Your task to perform on an android device: Go to Yahoo.com Image 0: 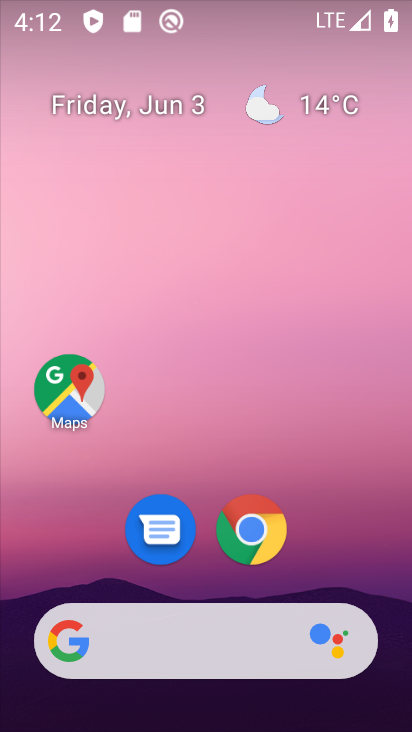
Step 0: press home button
Your task to perform on an android device: Go to Yahoo.com Image 1: 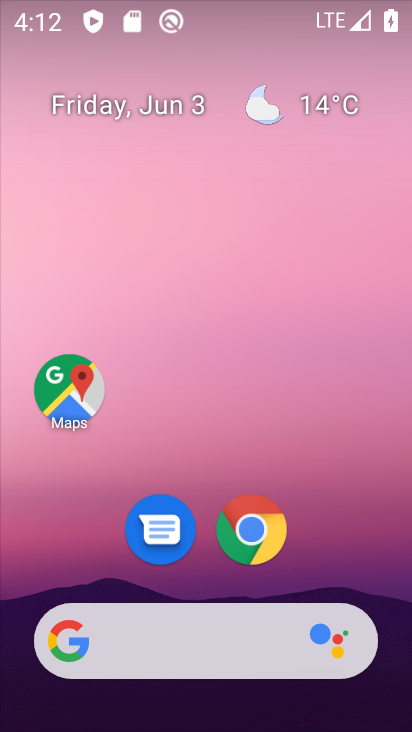
Step 1: drag from (205, 584) to (223, 11)
Your task to perform on an android device: Go to Yahoo.com Image 2: 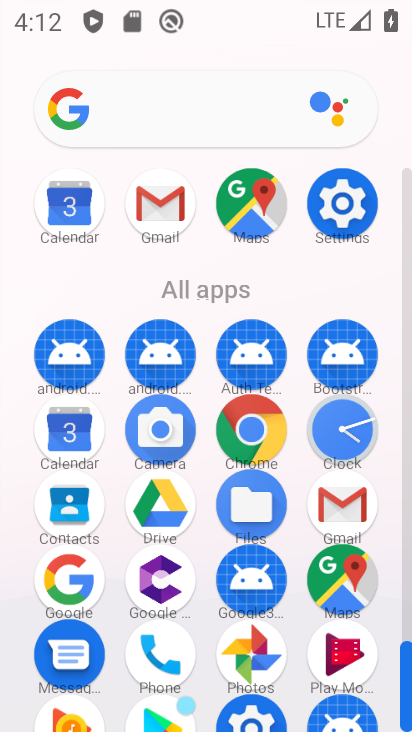
Step 2: click (252, 422)
Your task to perform on an android device: Go to Yahoo.com Image 3: 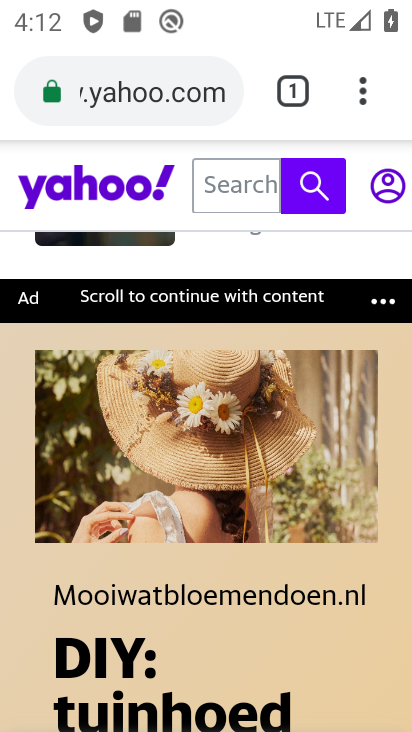
Step 3: task complete